Your task to perform on an android device: toggle notifications settings in the gmail app Image 0: 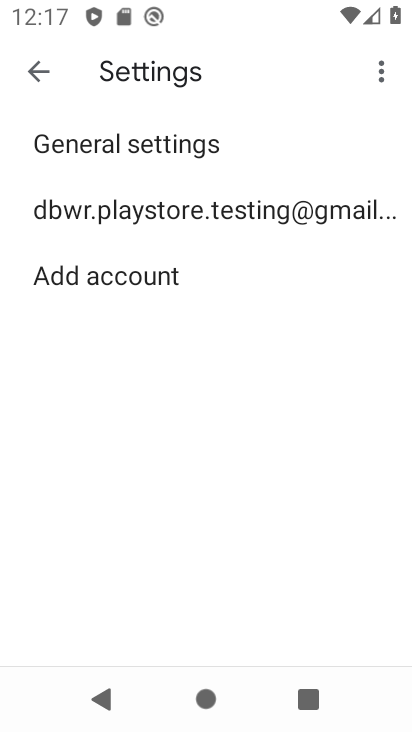
Step 0: press home button
Your task to perform on an android device: toggle notifications settings in the gmail app Image 1: 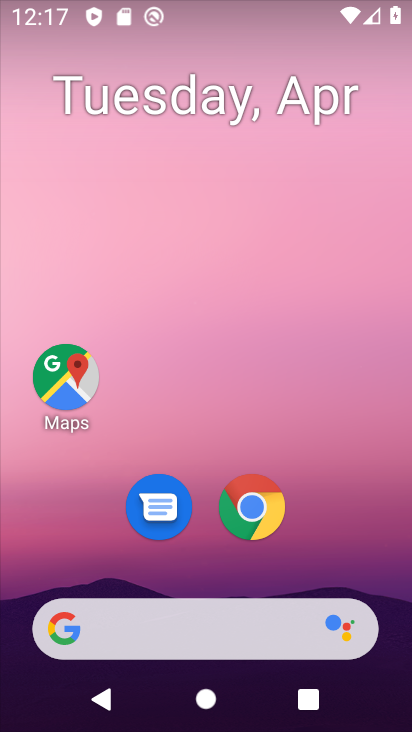
Step 1: drag from (217, 563) to (193, 81)
Your task to perform on an android device: toggle notifications settings in the gmail app Image 2: 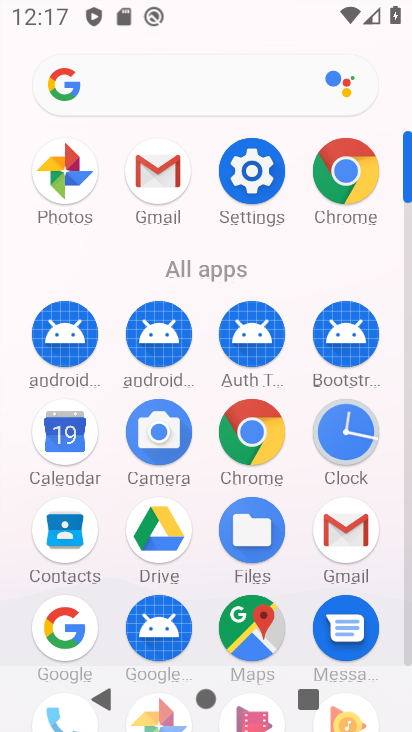
Step 2: click (342, 528)
Your task to perform on an android device: toggle notifications settings in the gmail app Image 3: 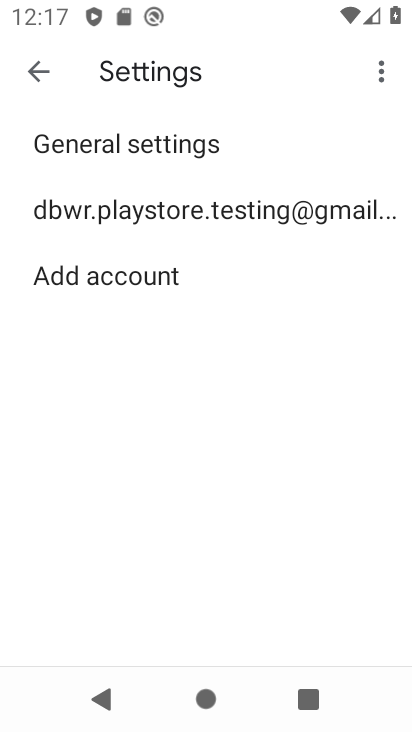
Step 3: click (153, 214)
Your task to perform on an android device: toggle notifications settings in the gmail app Image 4: 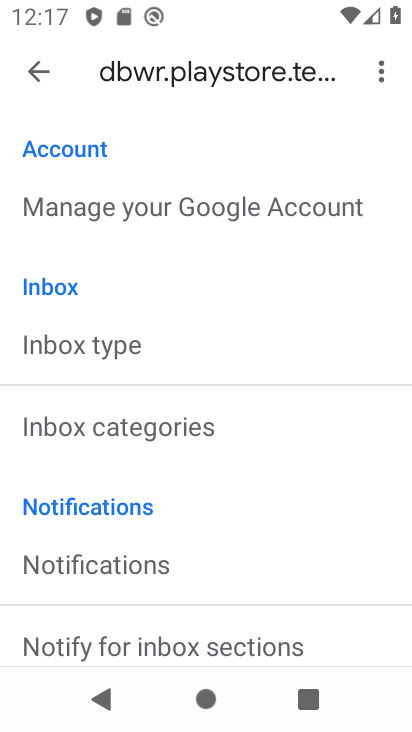
Step 4: click (104, 558)
Your task to perform on an android device: toggle notifications settings in the gmail app Image 5: 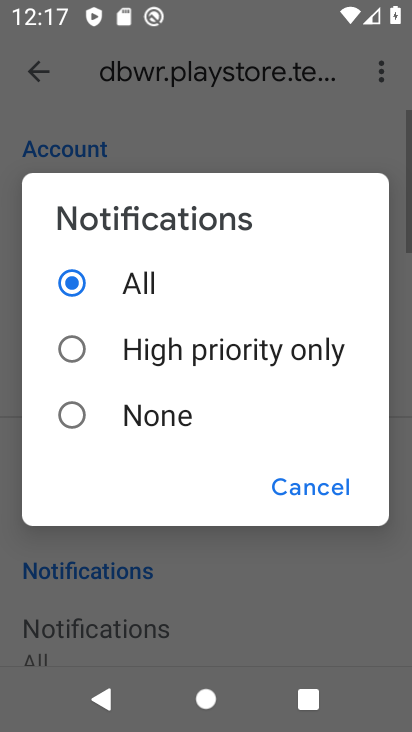
Step 5: click (146, 408)
Your task to perform on an android device: toggle notifications settings in the gmail app Image 6: 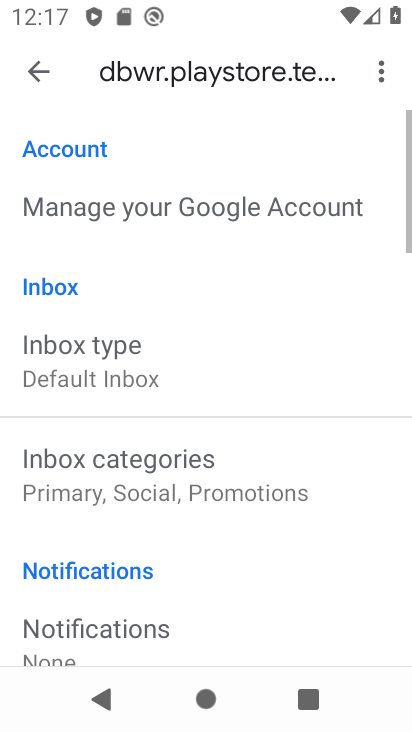
Step 6: task complete